Your task to perform on an android device: set default search engine in the chrome app Image 0: 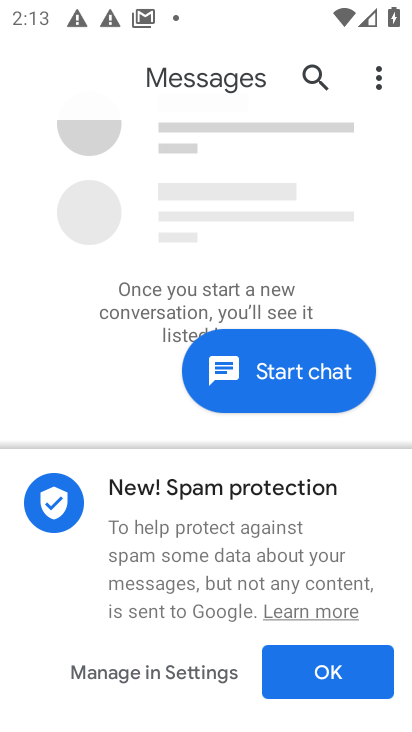
Step 0: press home button
Your task to perform on an android device: set default search engine in the chrome app Image 1: 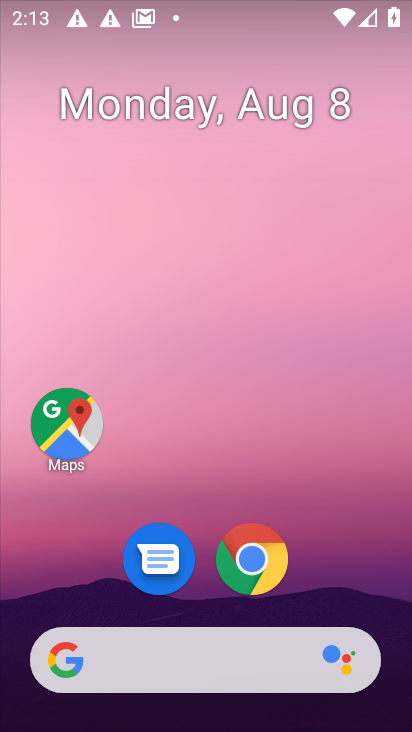
Step 1: click (263, 562)
Your task to perform on an android device: set default search engine in the chrome app Image 2: 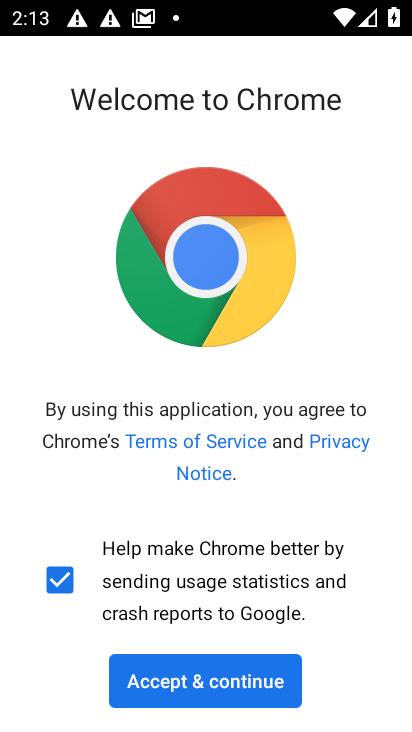
Step 2: click (228, 679)
Your task to perform on an android device: set default search engine in the chrome app Image 3: 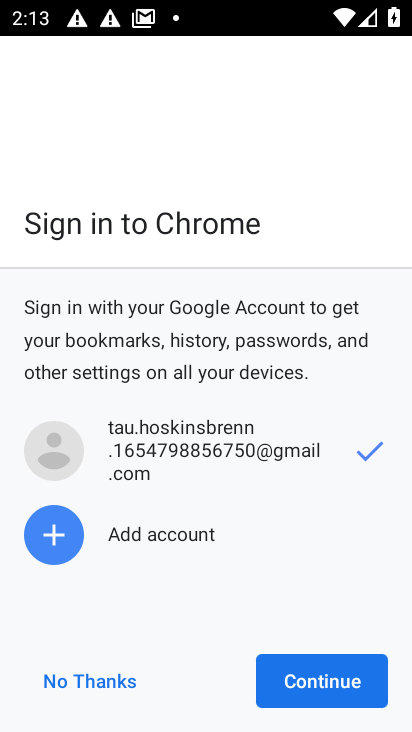
Step 3: click (304, 679)
Your task to perform on an android device: set default search engine in the chrome app Image 4: 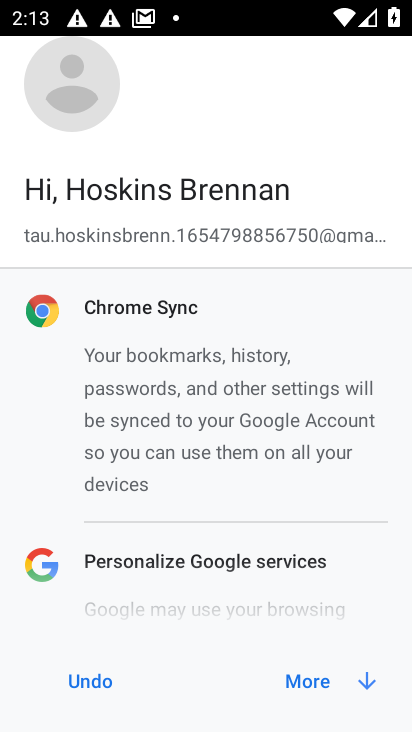
Step 4: click (304, 679)
Your task to perform on an android device: set default search engine in the chrome app Image 5: 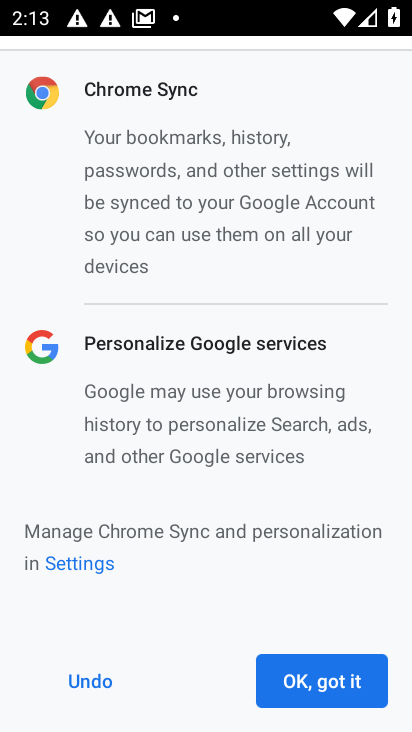
Step 5: click (304, 679)
Your task to perform on an android device: set default search engine in the chrome app Image 6: 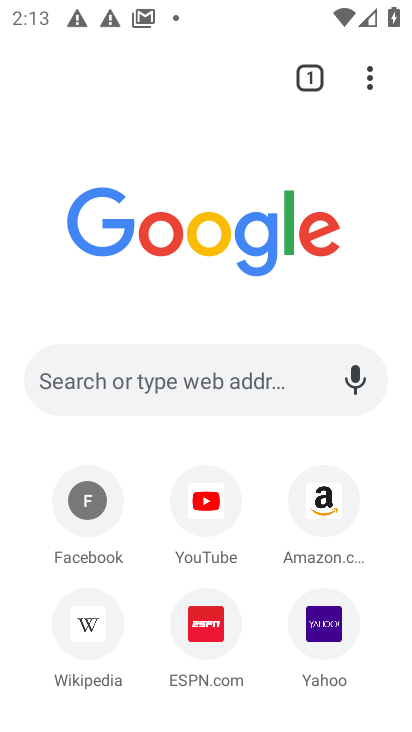
Step 6: click (370, 78)
Your task to perform on an android device: set default search engine in the chrome app Image 7: 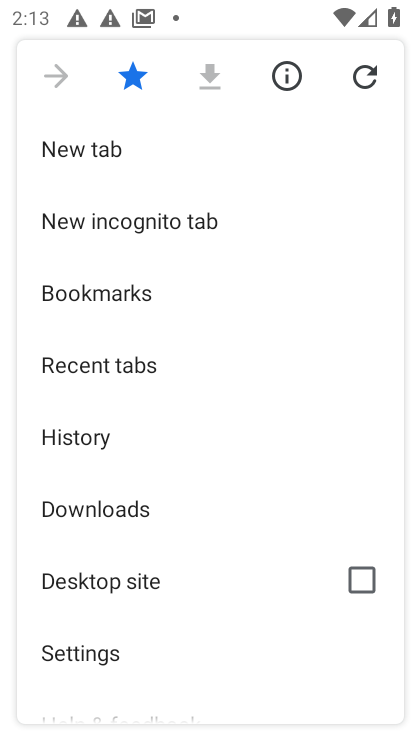
Step 7: drag from (176, 397) to (209, 326)
Your task to perform on an android device: set default search engine in the chrome app Image 8: 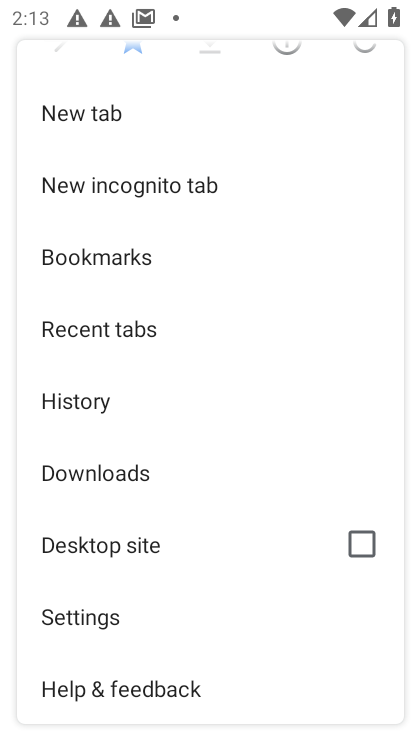
Step 8: drag from (160, 478) to (202, 403)
Your task to perform on an android device: set default search engine in the chrome app Image 9: 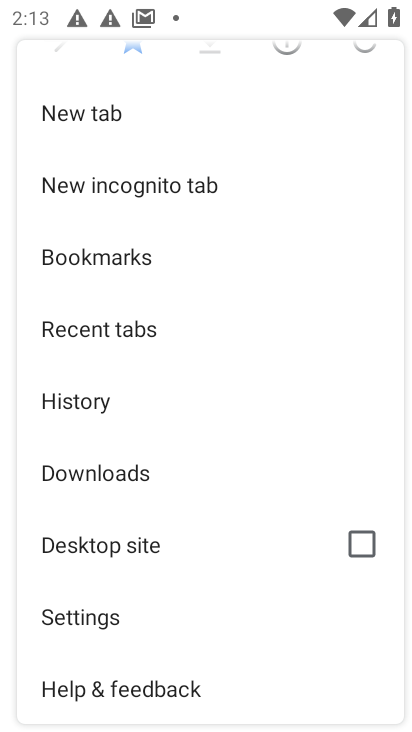
Step 9: click (90, 619)
Your task to perform on an android device: set default search engine in the chrome app Image 10: 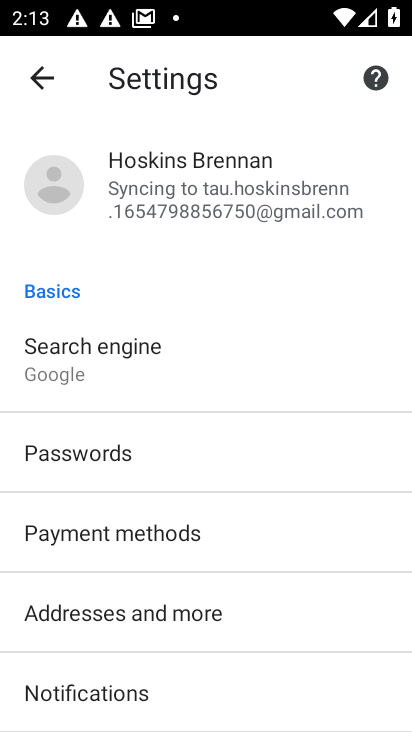
Step 10: click (148, 354)
Your task to perform on an android device: set default search engine in the chrome app Image 11: 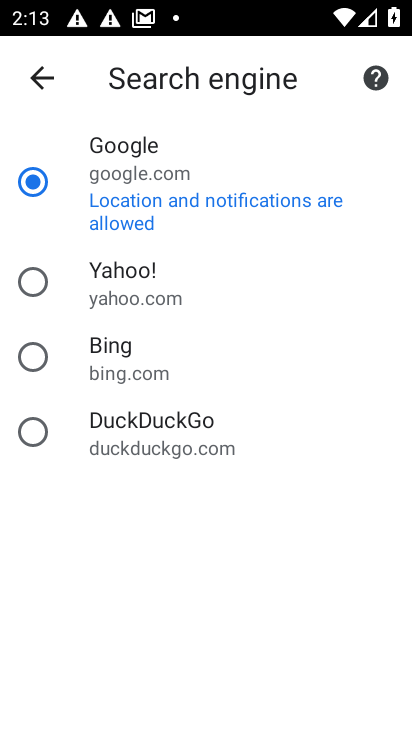
Step 11: click (37, 279)
Your task to perform on an android device: set default search engine in the chrome app Image 12: 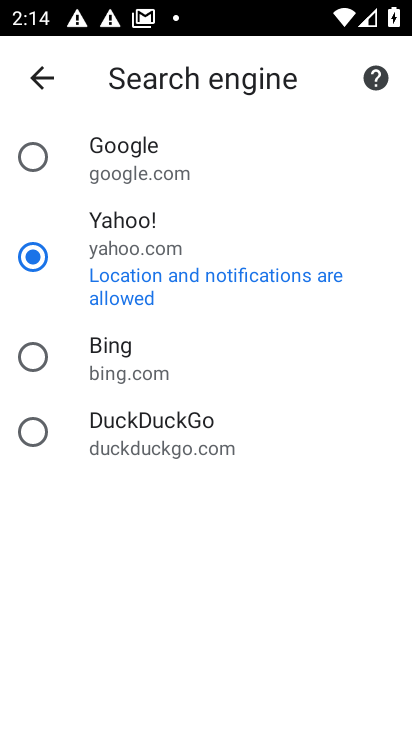
Step 12: task complete